Your task to perform on an android device: find snoozed emails in the gmail app Image 0: 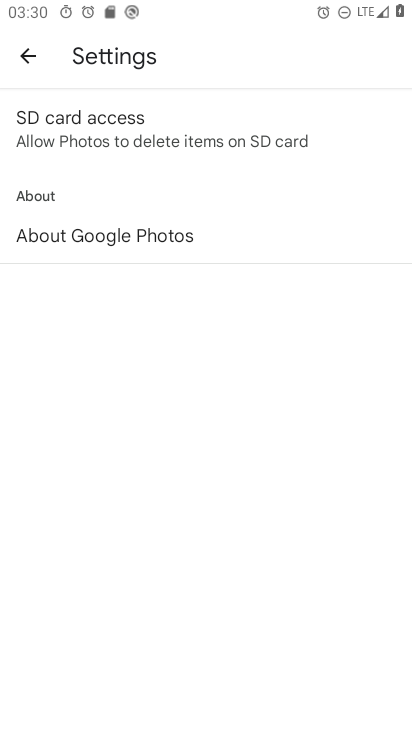
Step 0: press home button
Your task to perform on an android device: find snoozed emails in the gmail app Image 1: 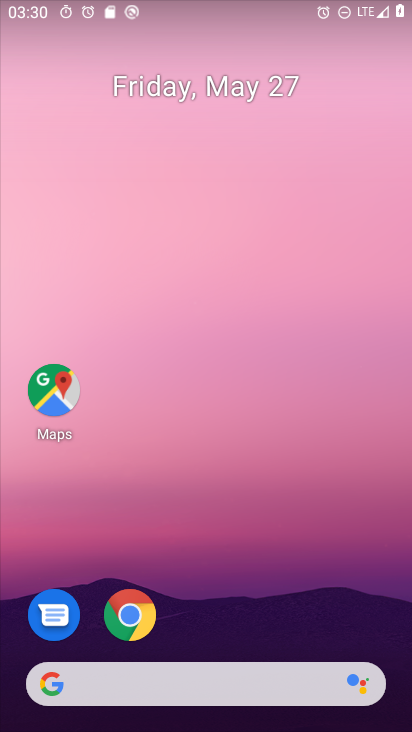
Step 1: drag from (371, 627) to (394, 269)
Your task to perform on an android device: find snoozed emails in the gmail app Image 2: 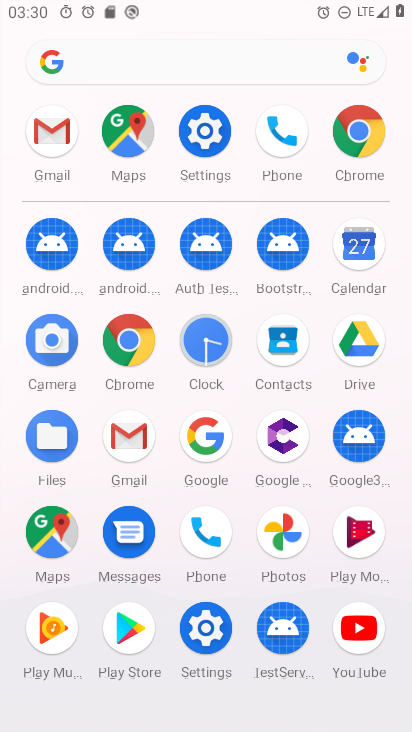
Step 2: click (137, 452)
Your task to perform on an android device: find snoozed emails in the gmail app Image 3: 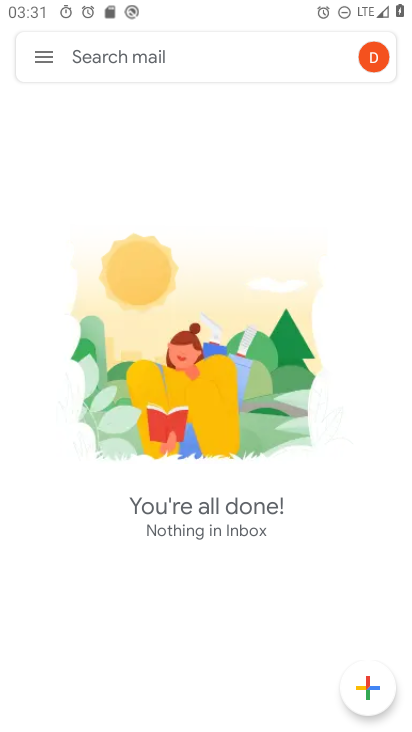
Step 3: click (46, 55)
Your task to perform on an android device: find snoozed emails in the gmail app Image 4: 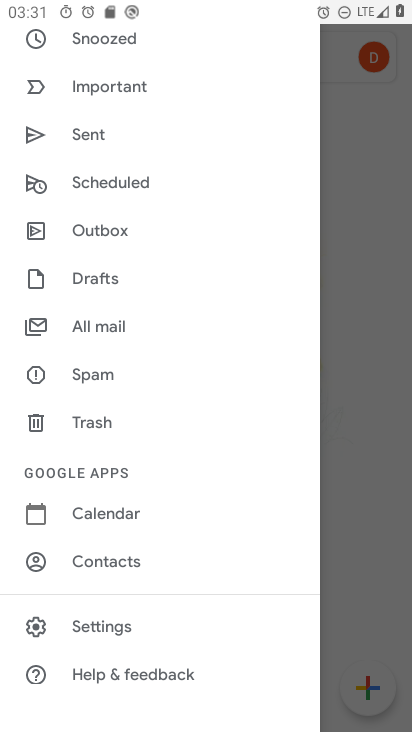
Step 4: click (118, 48)
Your task to perform on an android device: find snoozed emails in the gmail app Image 5: 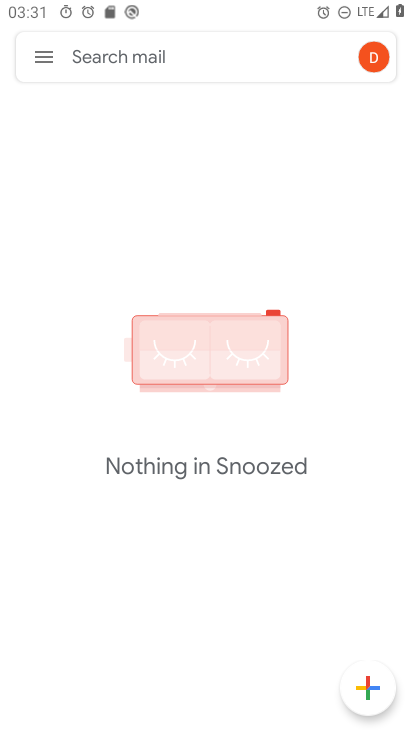
Step 5: task complete